Your task to perform on an android device: open app "Google Maps" Image 0: 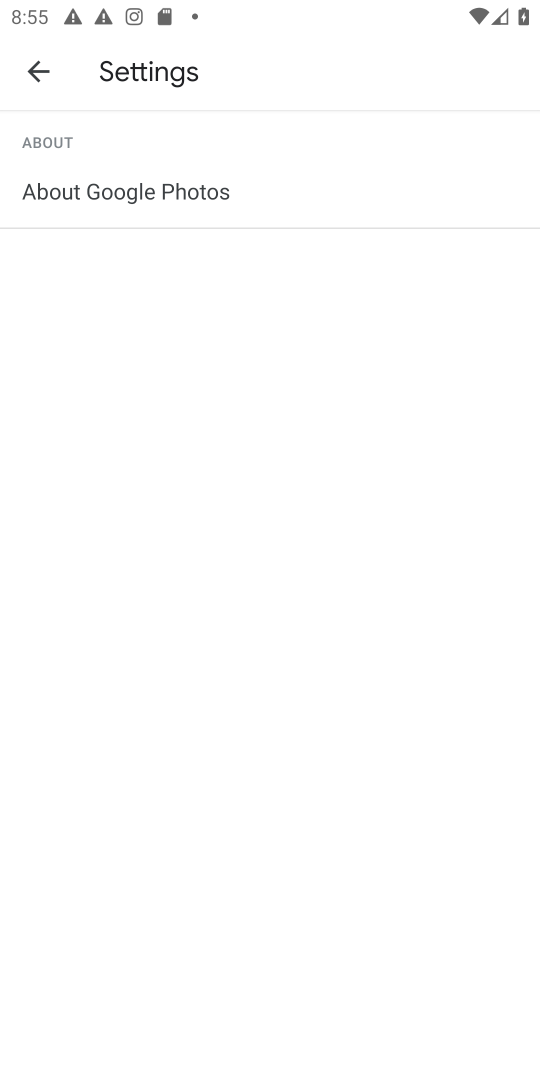
Step 0: press home button
Your task to perform on an android device: open app "Google Maps" Image 1: 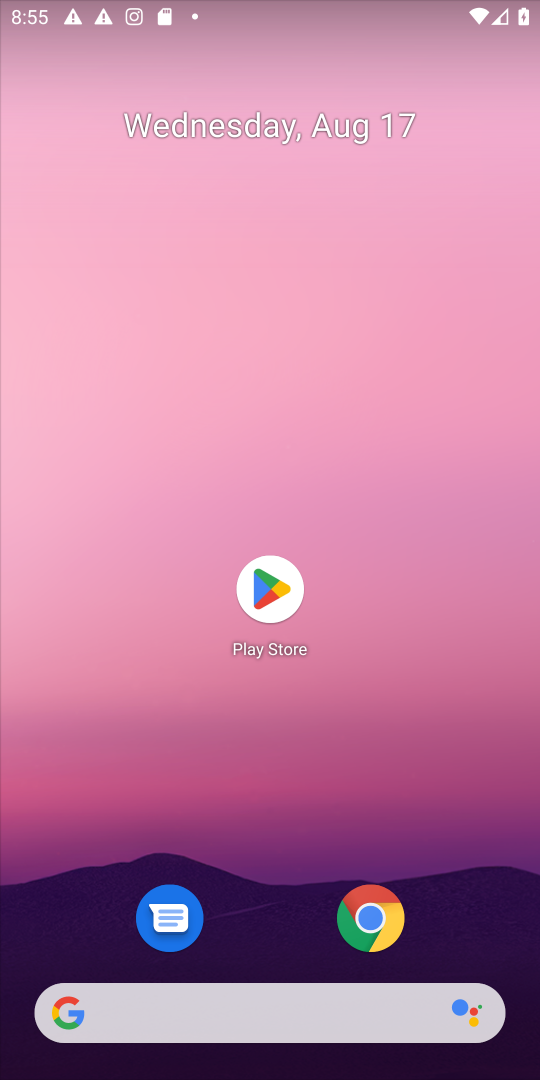
Step 1: click (269, 578)
Your task to perform on an android device: open app "Google Maps" Image 2: 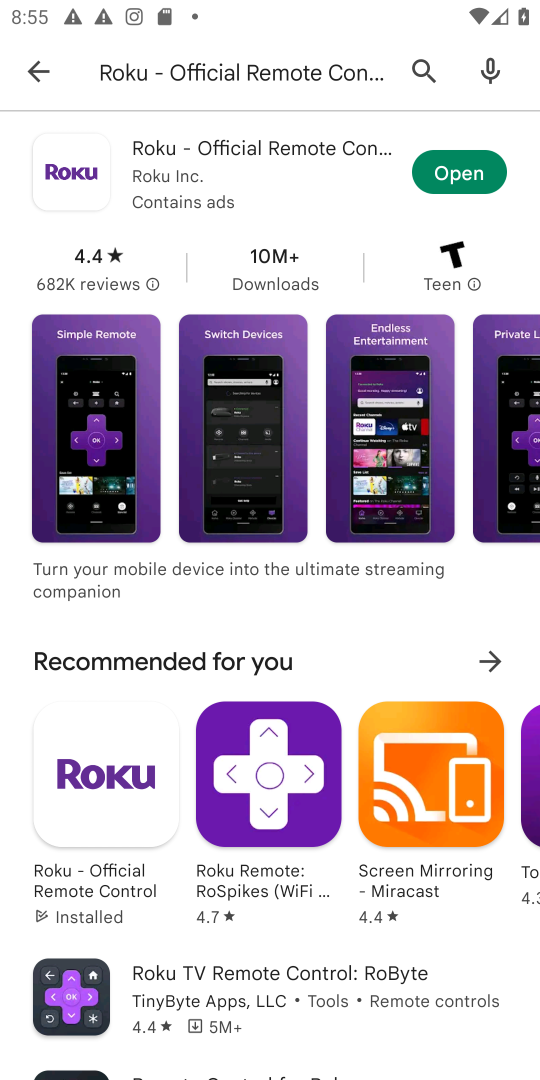
Step 2: click (423, 63)
Your task to perform on an android device: open app "Google Maps" Image 3: 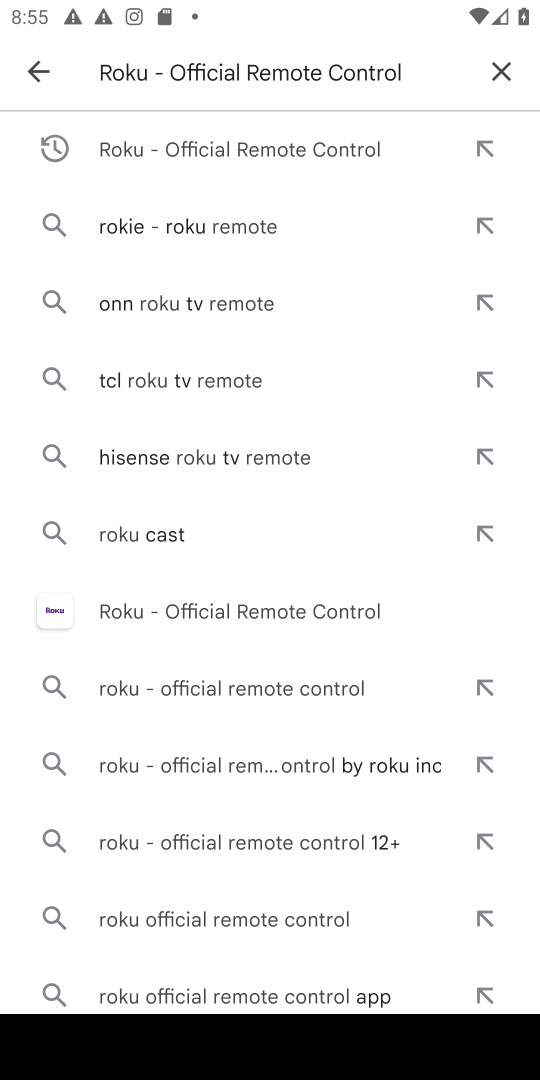
Step 3: click (504, 67)
Your task to perform on an android device: open app "Google Maps" Image 4: 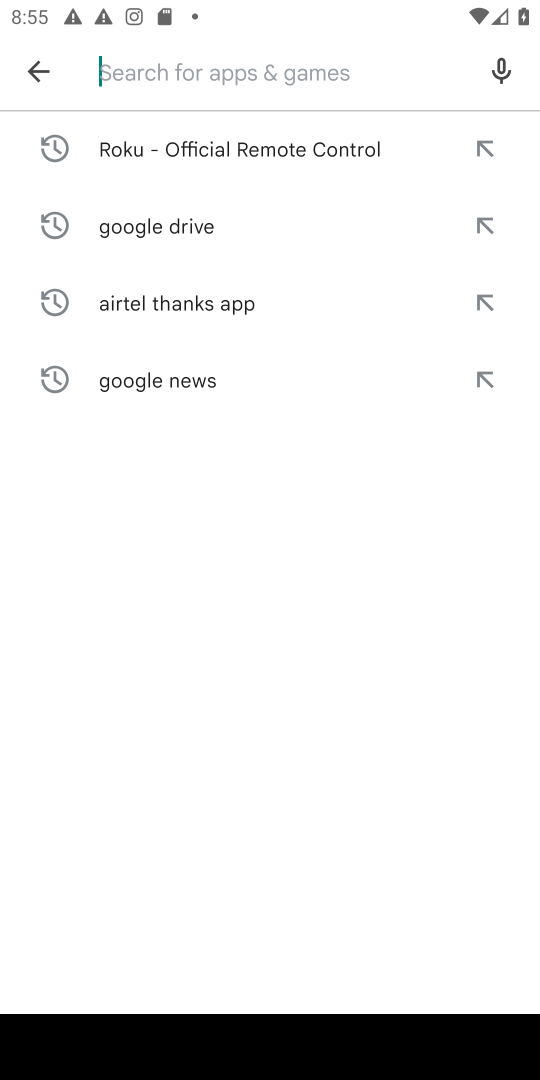
Step 4: type "Google Maps"
Your task to perform on an android device: open app "Google Maps" Image 5: 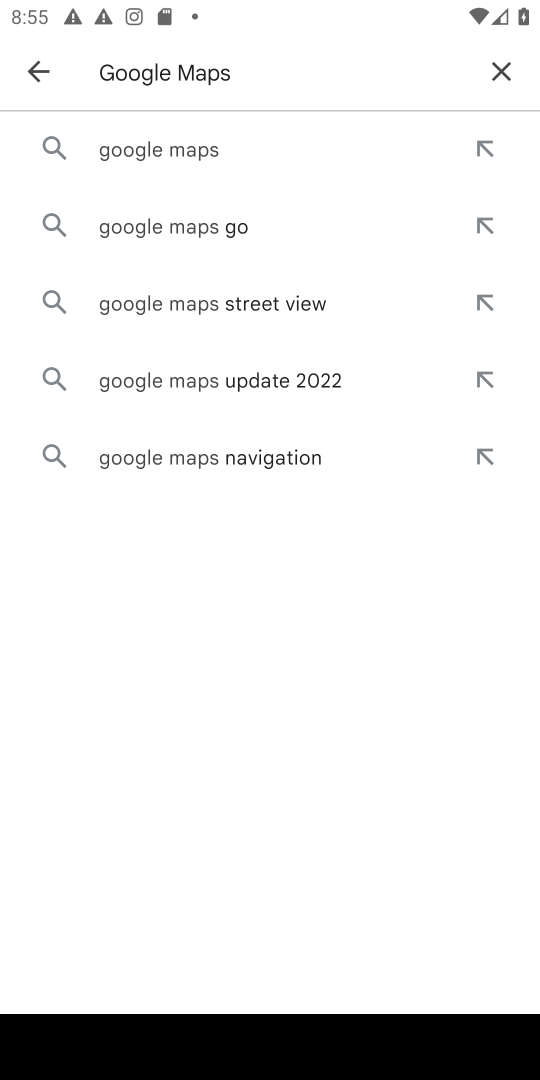
Step 5: click (132, 151)
Your task to perform on an android device: open app "Google Maps" Image 6: 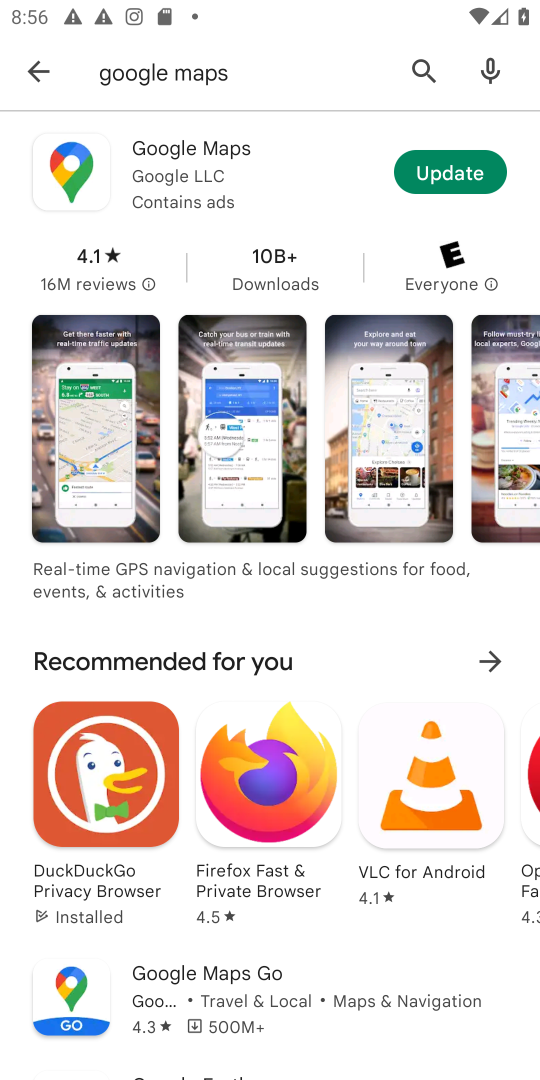
Step 6: click (162, 191)
Your task to perform on an android device: open app "Google Maps" Image 7: 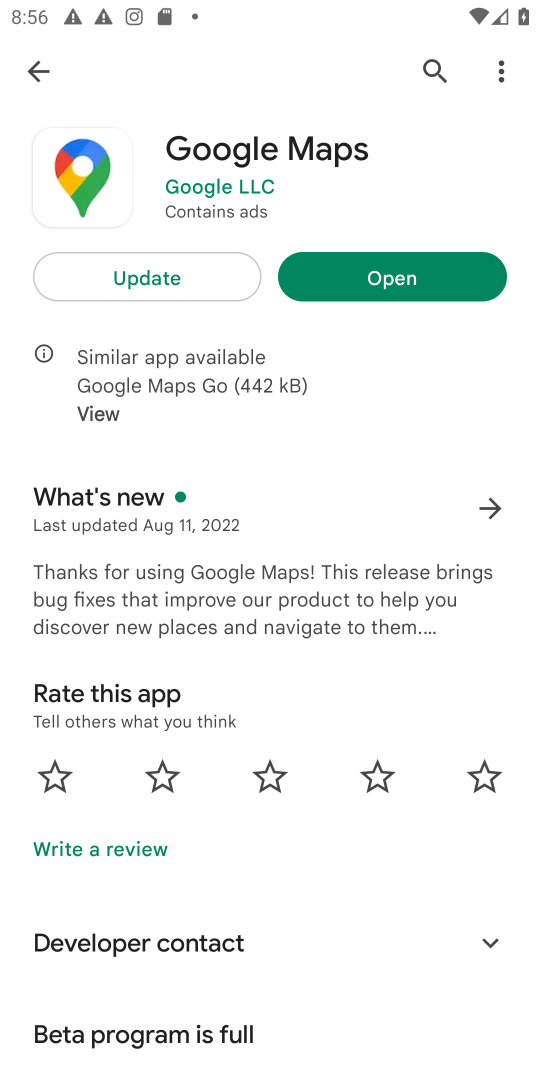
Step 7: click (443, 275)
Your task to perform on an android device: open app "Google Maps" Image 8: 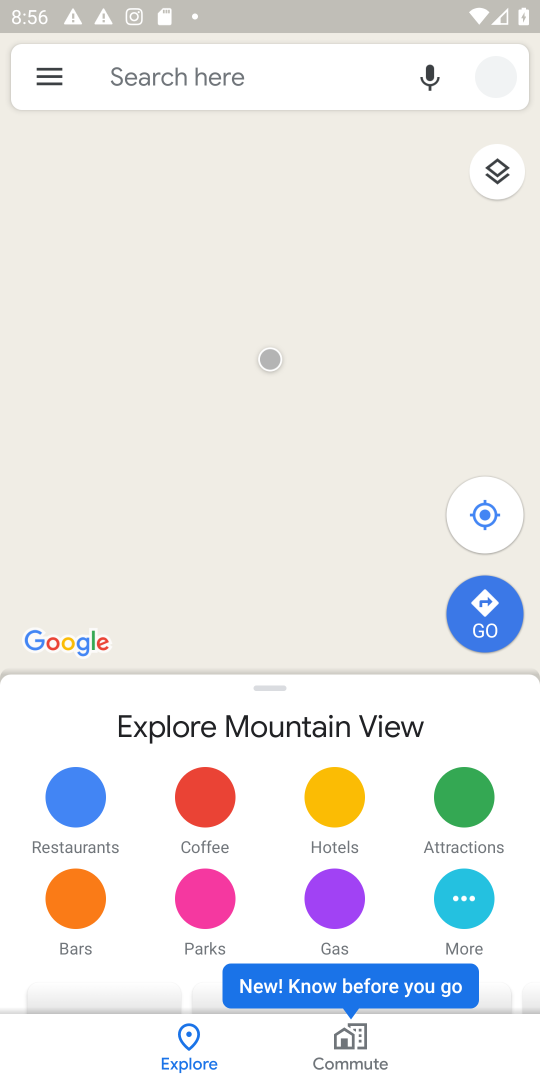
Step 8: task complete